Your task to perform on an android device: change timer sound Image 0: 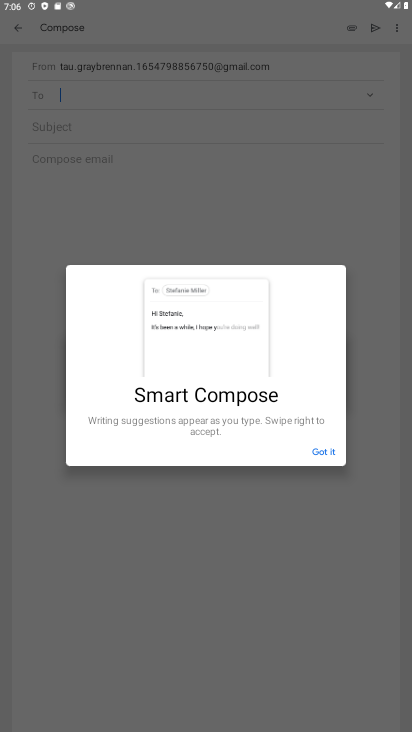
Step 0: press home button
Your task to perform on an android device: change timer sound Image 1: 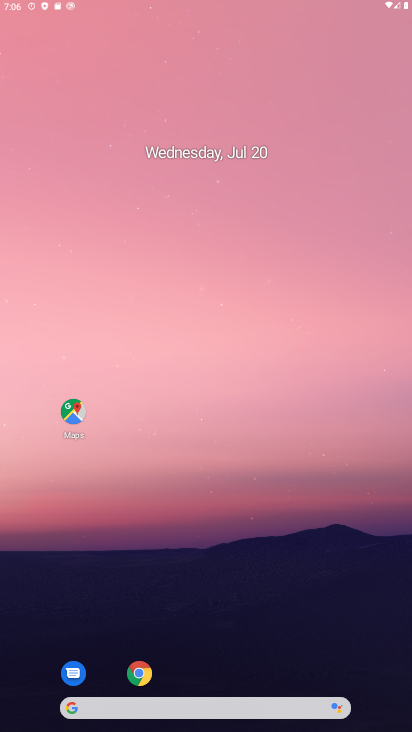
Step 1: drag from (395, 687) to (310, 42)
Your task to perform on an android device: change timer sound Image 2: 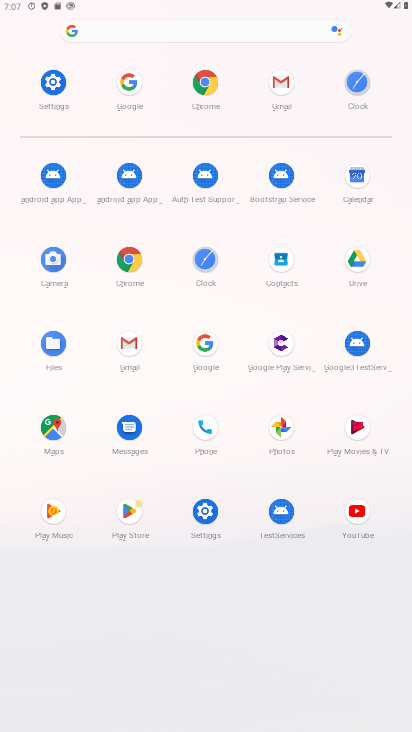
Step 2: click (200, 253)
Your task to perform on an android device: change timer sound Image 3: 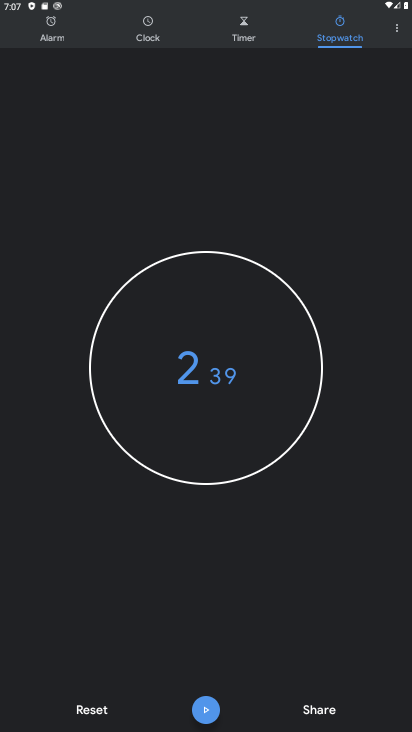
Step 3: click (400, 27)
Your task to perform on an android device: change timer sound Image 4: 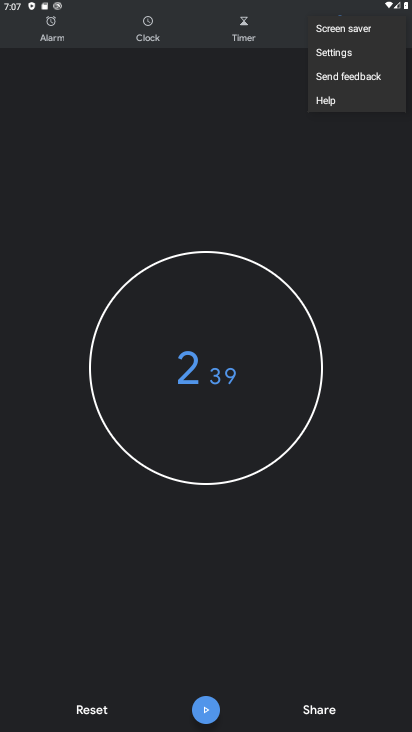
Step 4: click (341, 51)
Your task to perform on an android device: change timer sound Image 5: 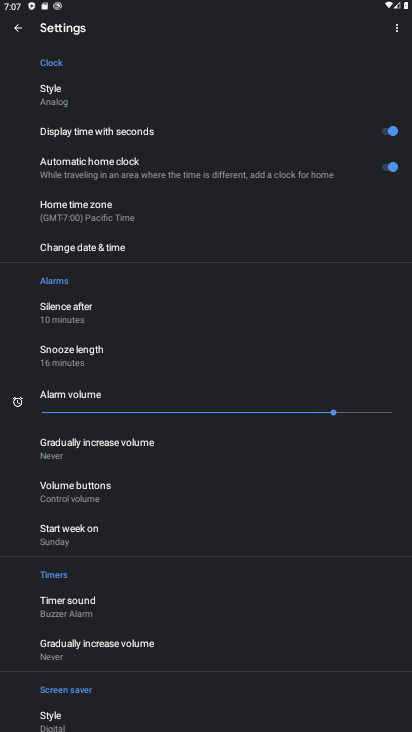
Step 5: click (102, 609)
Your task to perform on an android device: change timer sound Image 6: 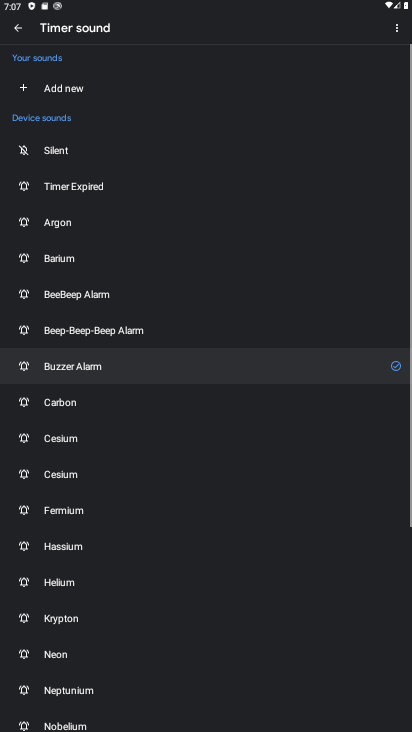
Step 6: click (68, 401)
Your task to perform on an android device: change timer sound Image 7: 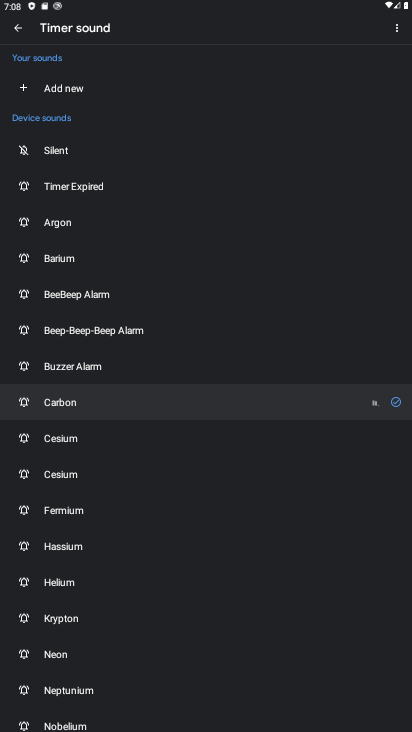
Step 7: task complete